Your task to perform on an android device: Go to internet settings Image 0: 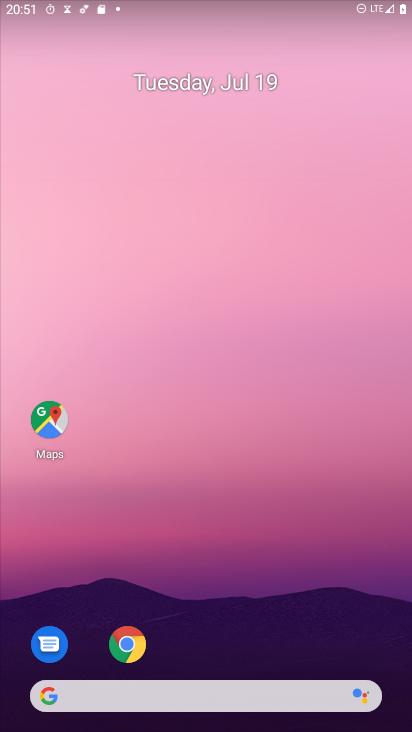
Step 0: drag from (60, 631) to (171, 266)
Your task to perform on an android device: Go to internet settings Image 1: 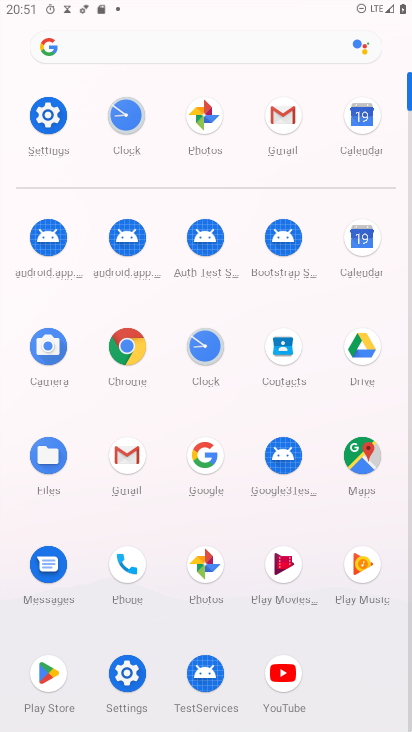
Step 1: click (109, 683)
Your task to perform on an android device: Go to internet settings Image 2: 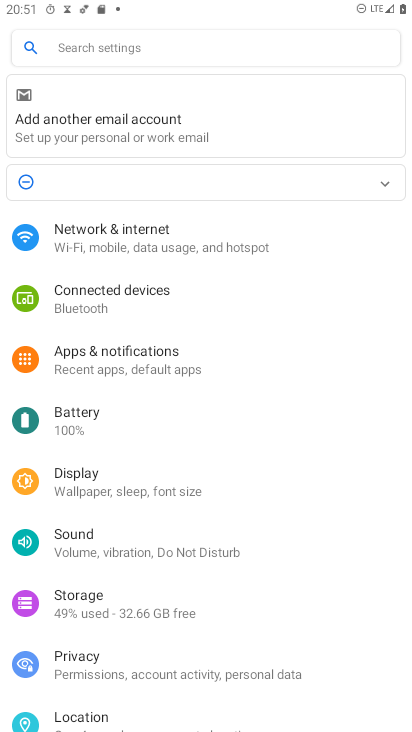
Step 2: click (196, 245)
Your task to perform on an android device: Go to internet settings Image 3: 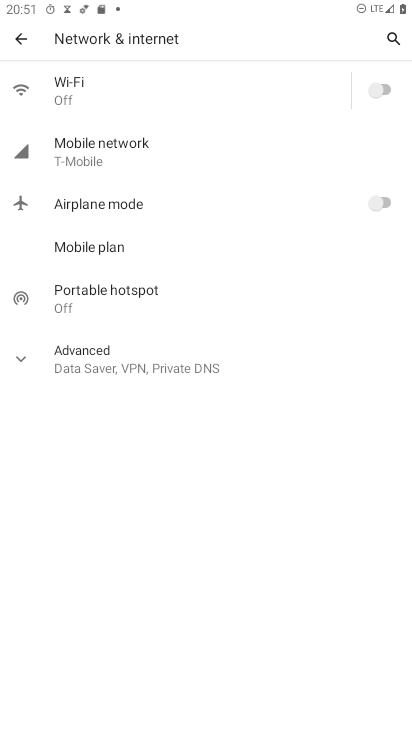
Step 3: task complete